Your task to perform on an android device: Is it going to rain this weekend? Image 0: 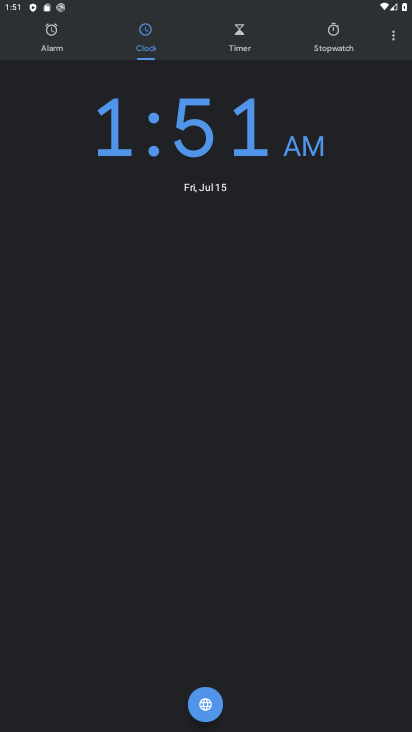
Step 0: press home button
Your task to perform on an android device: Is it going to rain this weekend? Image 1: 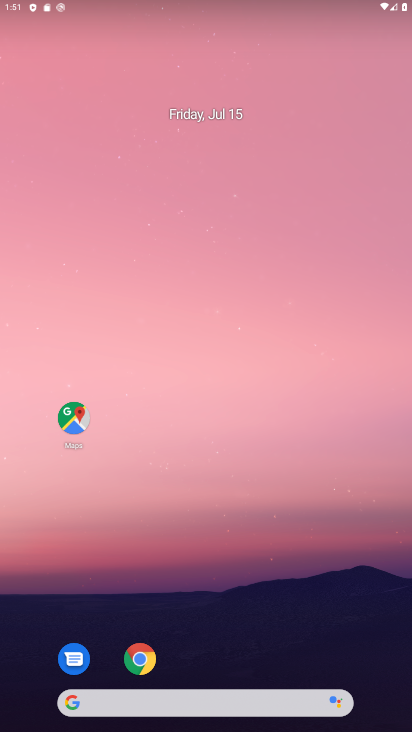
Step 1: drag from (214, 677) to (214, 212)
Your task to perform on an android device: Is it going to rain this weekend? Image 2: 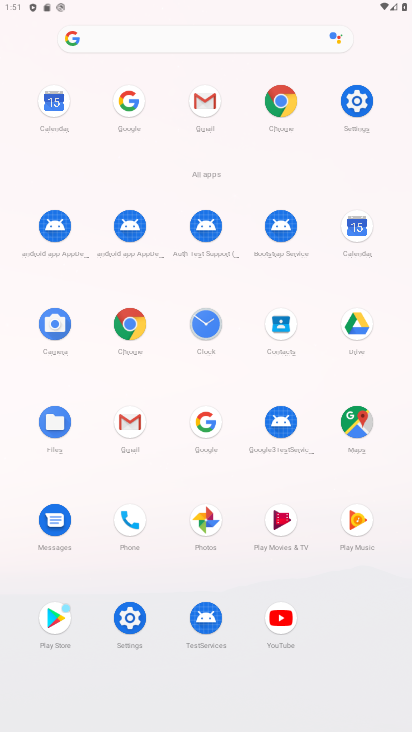
Step 2: click (208, 427)
Your task to perform on an android device: Is it going to rain this weekend? Image 3: 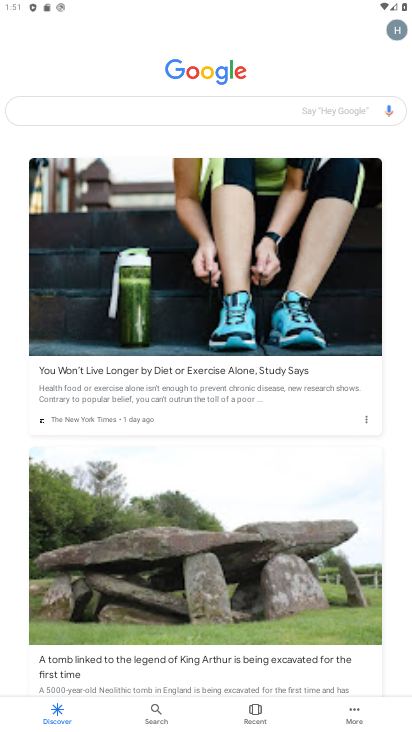
Step 3: click (114, 102)
Your task to perform on an android device: Is it going to rain this weekend? Image 4: 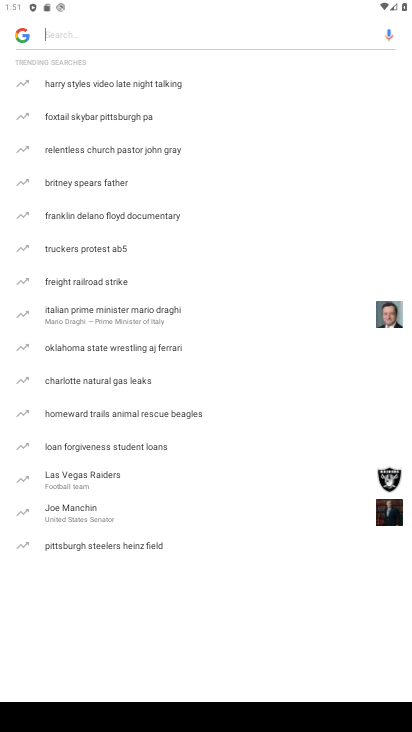
Step 4: type "Is it going to rain this weekend?"
Your task to perform on an android device: Is it going to rain this weekend? Image 5: 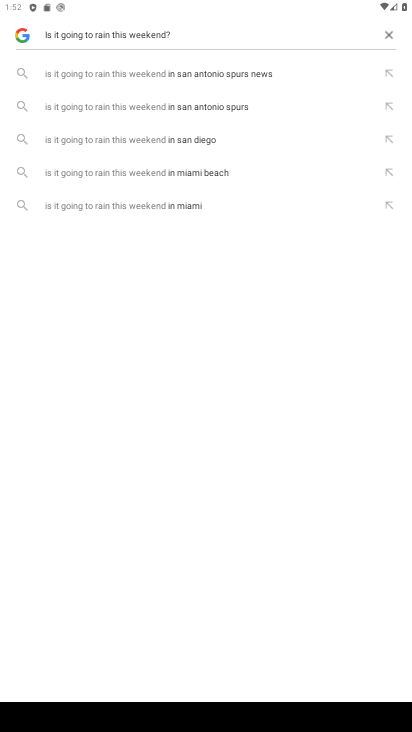
Step 5: click (146, 71)
Your task to perform on an android device: Is it going to rain this weekend? Image 6: 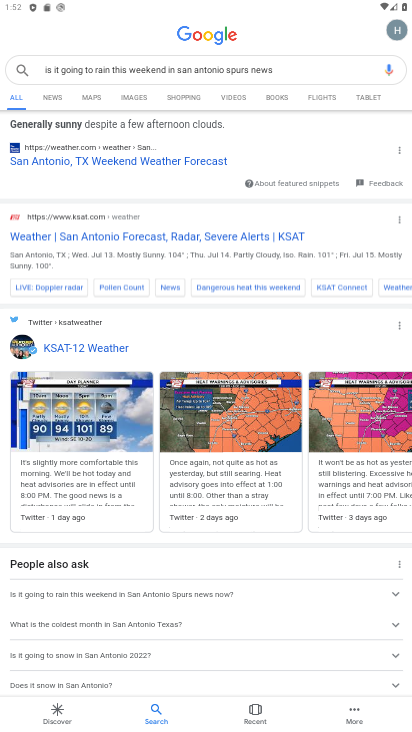
Step 6: click (88, 236)
Your task to perform on an android device: Is it going to rain this weekend? Image 7: 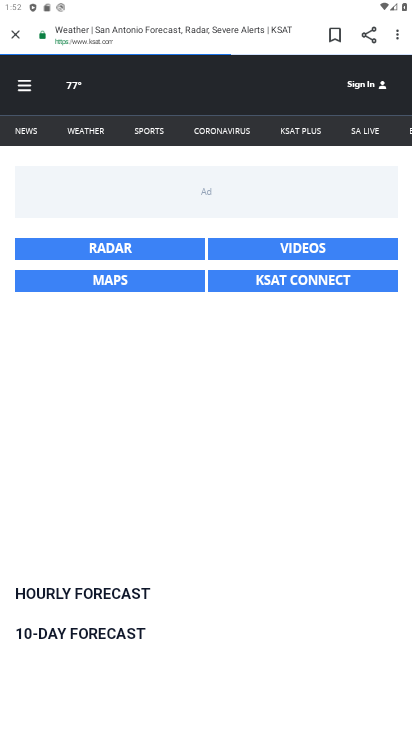
Step 7: task complete